Your task to perform on an android device: Open Google Chrome and open the bookmarks view Image 0: 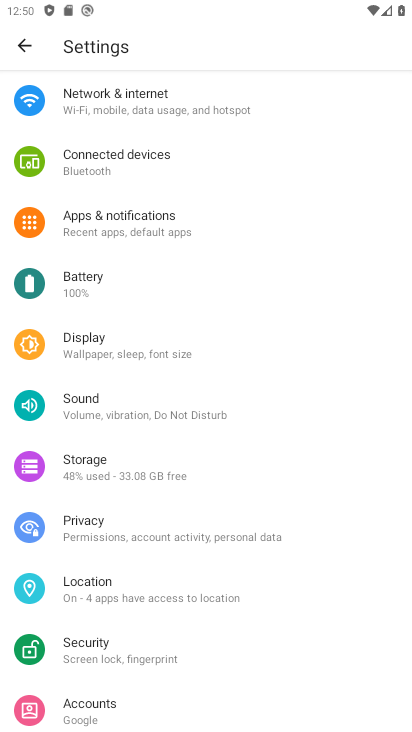
Step 0: press home button
Your task to perform on an android device: Open Google Chrome and open the bookmarks view Image 1: 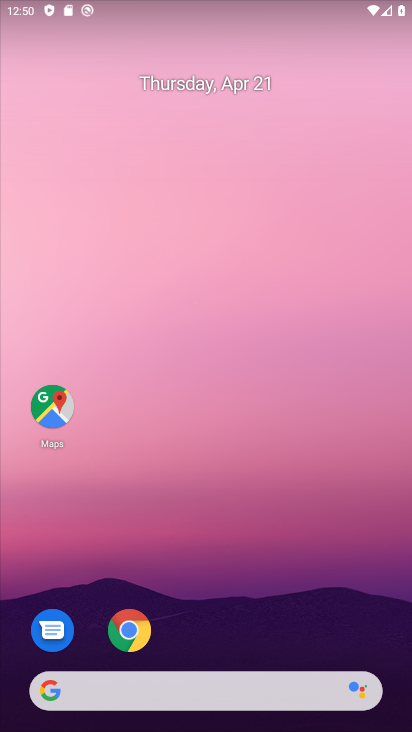
Step 1: click (148, 634)
Your task to perform on an android device: Open Google Chrome and open the bookmarks view Image 2: 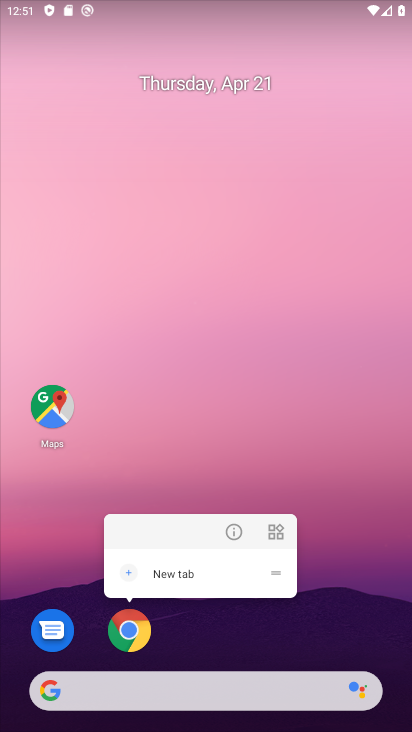
Step 2: click (235, 539)
Your task to perform on an android device: Open Google Chrome and open the bookmarks view Image 3: 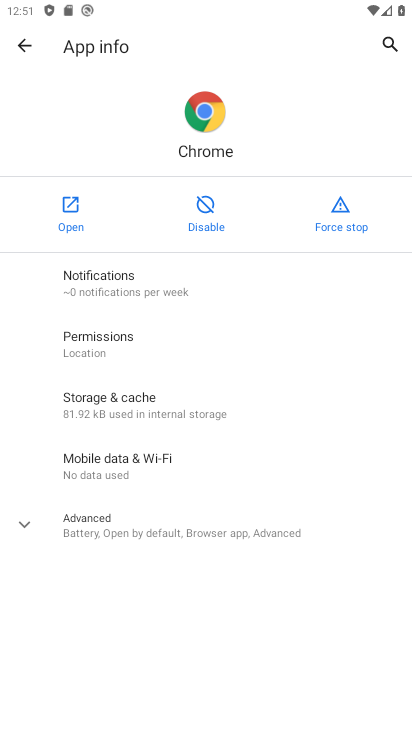
Step 3: click (65, 222)
Your task to perform on an android device: Open Google Chrome and open the bookmarks view Image 4: 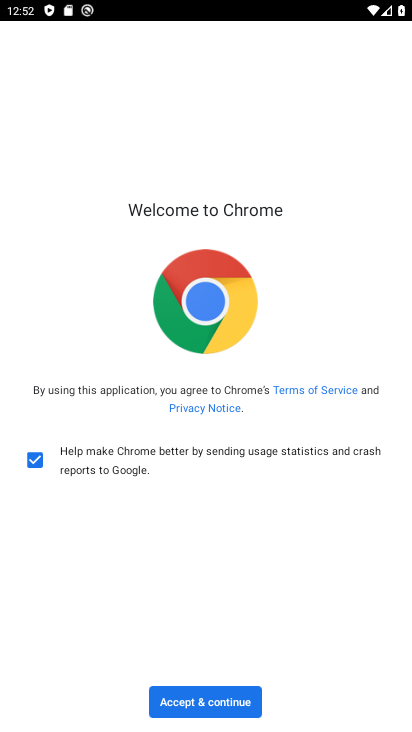
Step 4: click (220, 692)
Your task to perform on an android device: Open Google Chrome and open the bookmarks view Image 5: 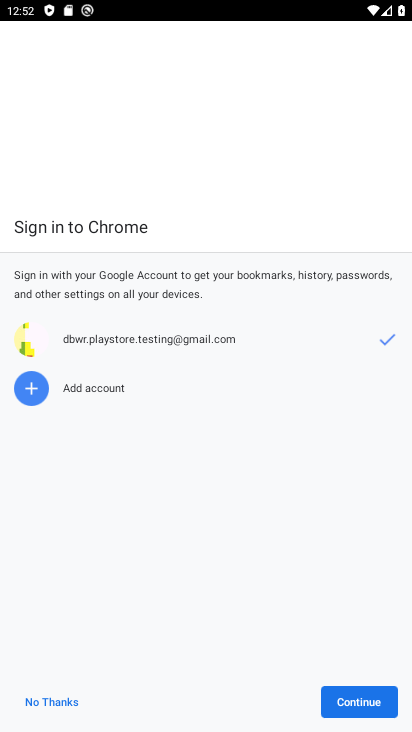
Step 5: click (337, 705)
Your task to perform on an android device: Open Google Chrome and open the bookmarks view Image 6: 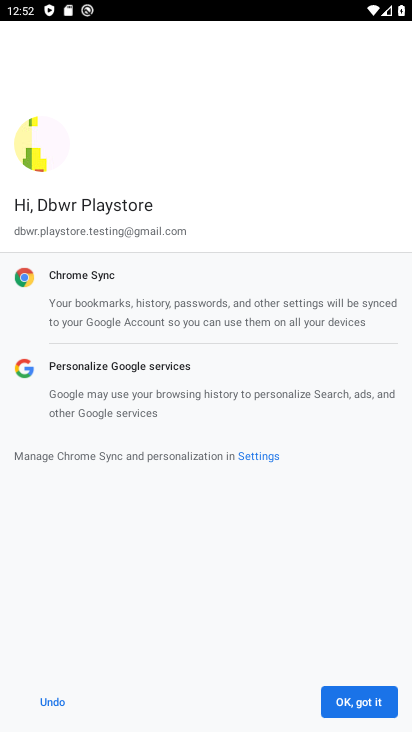
Step 6: click (324, 710)
Your task to perform on an android device: Open Google Chrome and open the bookmarks view Image 7: 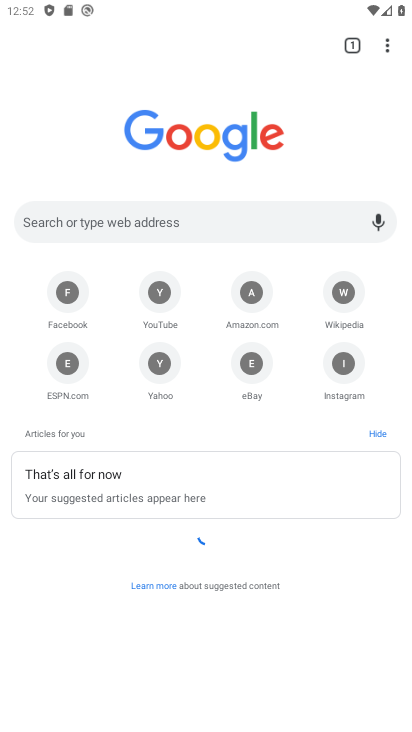
Step 7: click (385, 46)
Your task to perform on an android device: Open Google Chrome and open the bookmarks view Image 8: 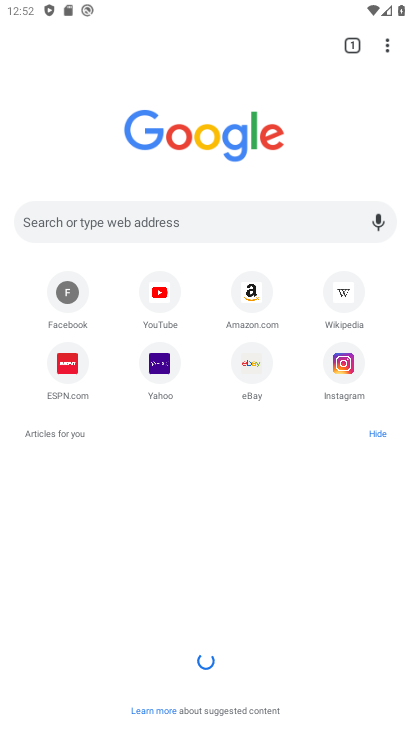
Step 8: click (388, 47)
Your task to perform on an android device: Open Google Chrome and open the bookmarks view Image 9: 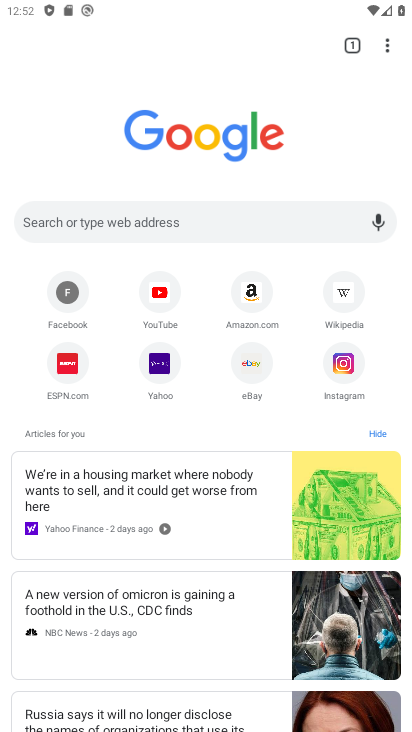
Step 9: click (389, 39)
Your task to perform on an android device: Open Google Chrome and open the bookmarks view Image 10: 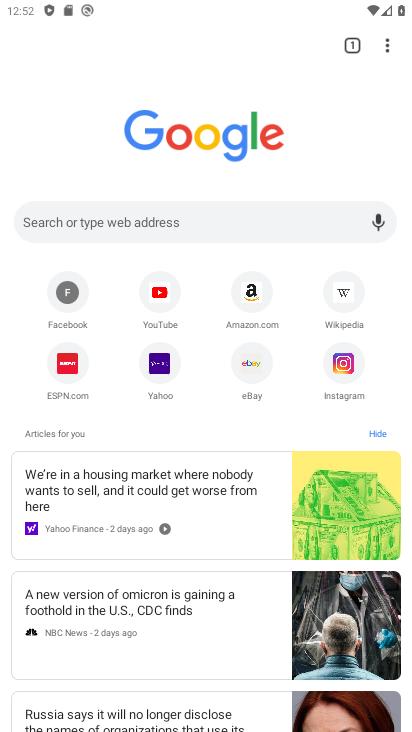
Step 10: click (384, 47)
Your task to perform on an android device: Open Google Chrome and open the bookmarks view Image 11: 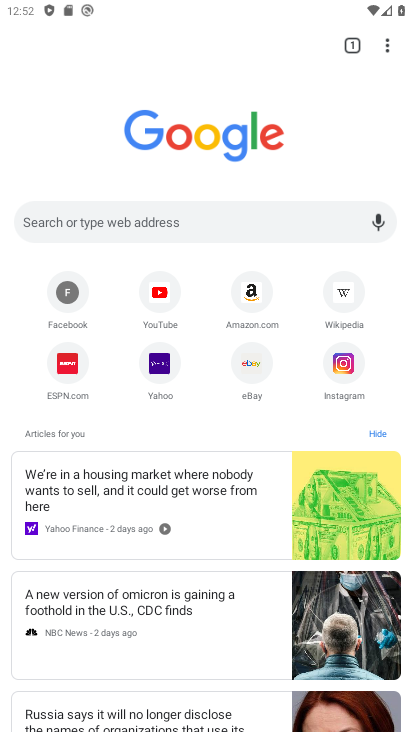
Step 11: click (382, 47)
Your task to perform on an android device: Open Google Chrome and open the bookmarks view Image 12: 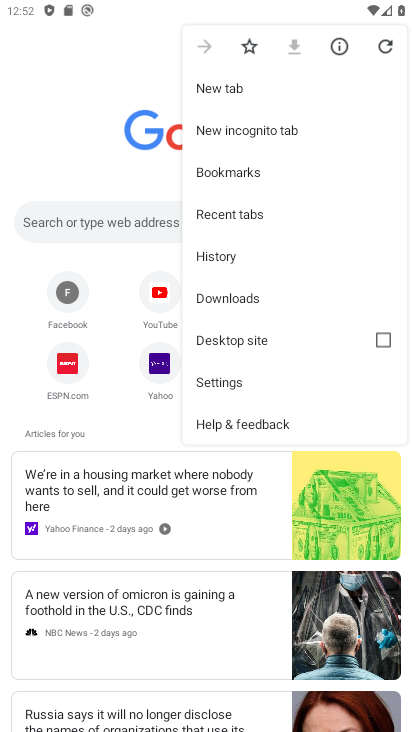
Step 12: click (246, 169)
Your task to perform on an android device: Open Google Chrome and open the bookmarks view Image 13: 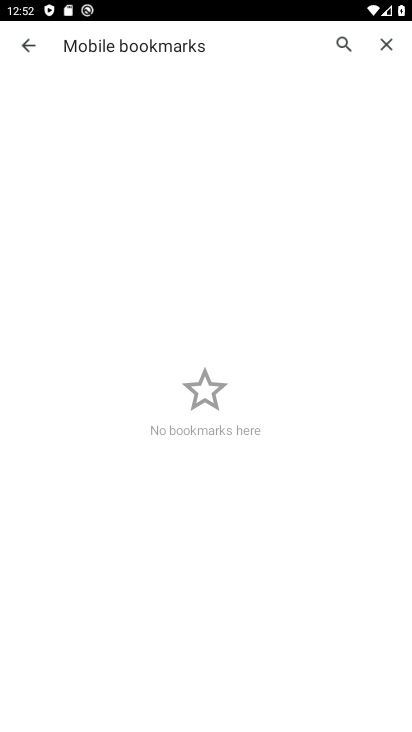
Step 13: task complete